Your task to perform on an android device: see sites visited before in the chrome app Image 0: 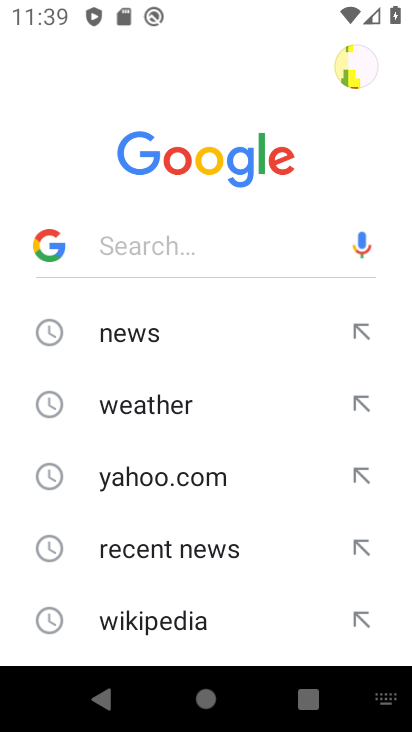
Step 0: press home button
Your task to perform on an android device: see sites visited before in the chrome app Image 1: 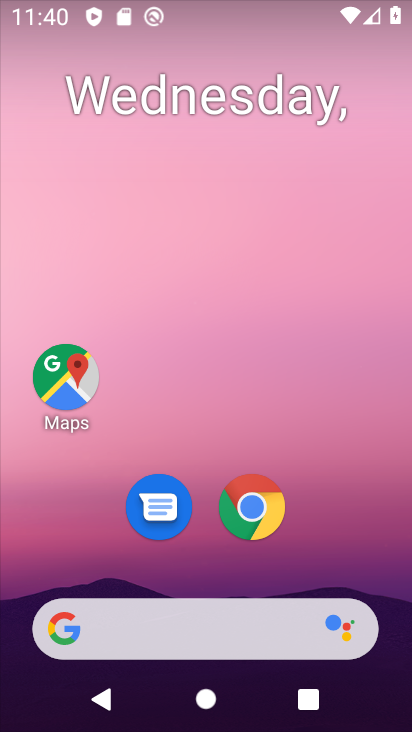
Step 1: click (259, 502)
Your task to perform on an android device: see sites visited before in the chrome app Image 2: 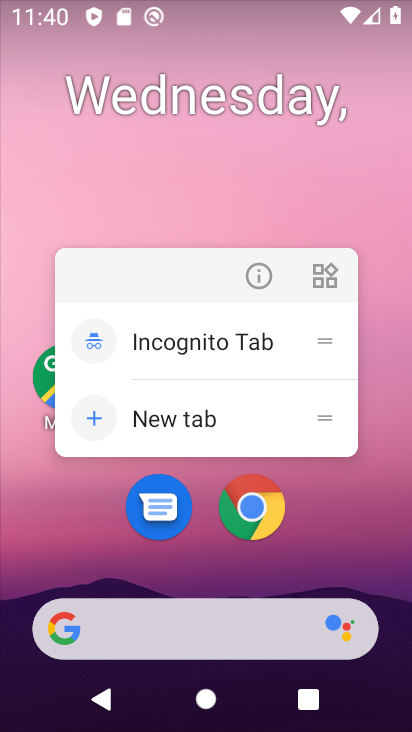
Step 2: click (259, 527)
Your task to perform on an android device: see sites visited before in the chrome app Image 3: 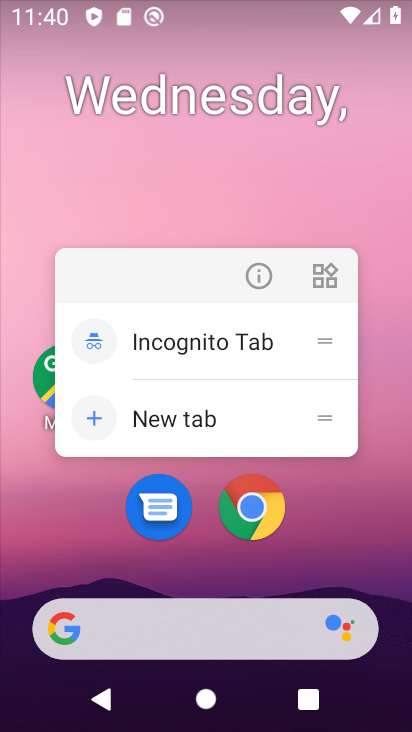
Step 3: click (249, 501)
Your task to perform on an android device: see sites visited before in the chrome app Image 4: 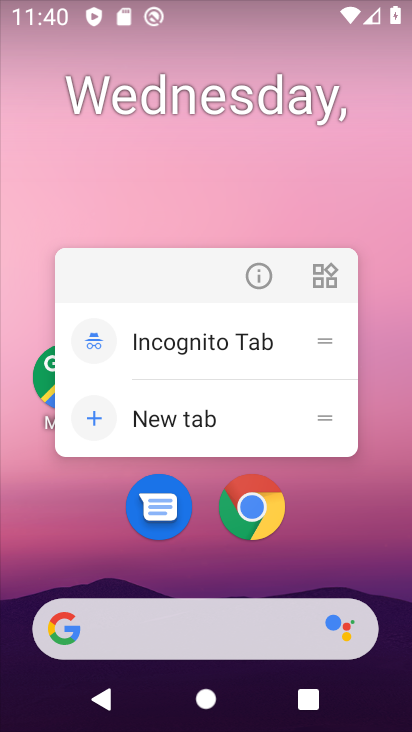
Step 4: click (259, 515)
Your task to perform on an android device: see sites visited before in the chrome app Image 5: 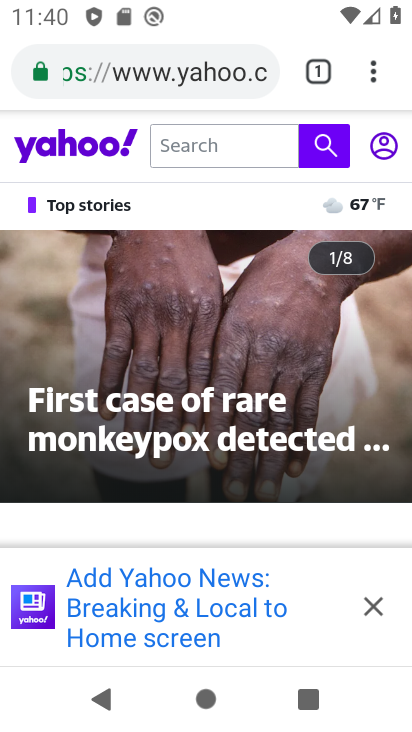
Step 5: click (371, 78)
Your task to perform on an android device: see sites visited before in the chrome app Image 6: 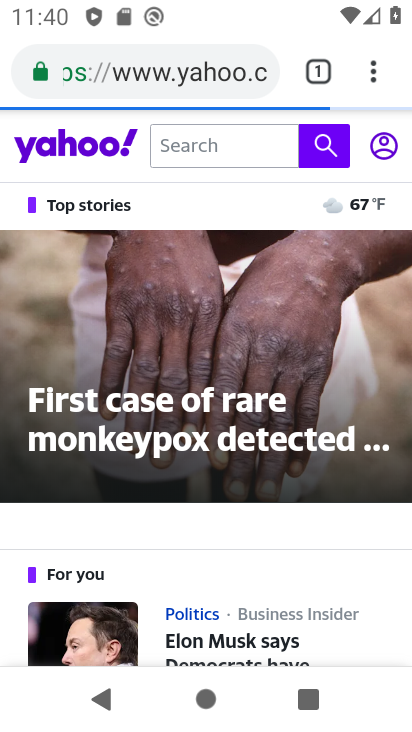
Step 6: click (381, 71)
Your task to perform on an android device: see sites visited before in the chrome app Image 7: 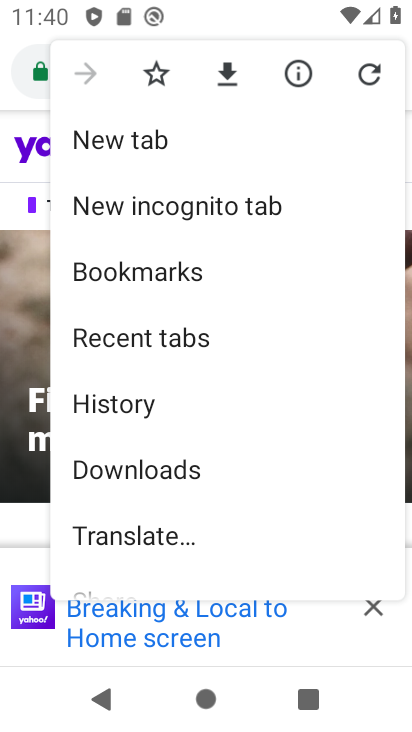
Step 7: click (127, 407)
Your task to perform on an android device: see sites visited before in the chrome app Image 8: 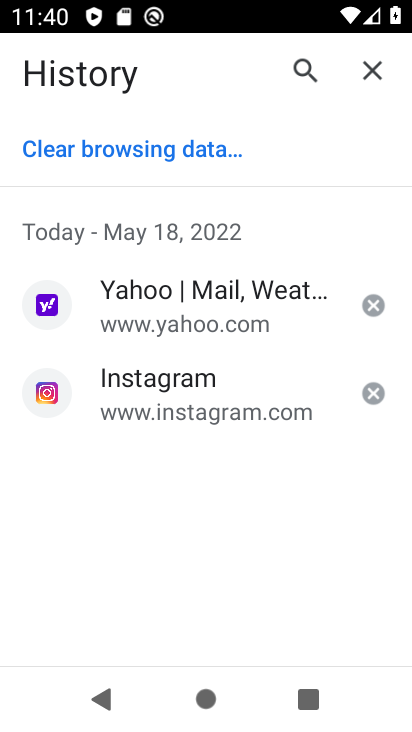
Step 8: task complete